Your task to perform on an android device: turn on notifications settings in the gmail app Image 0: 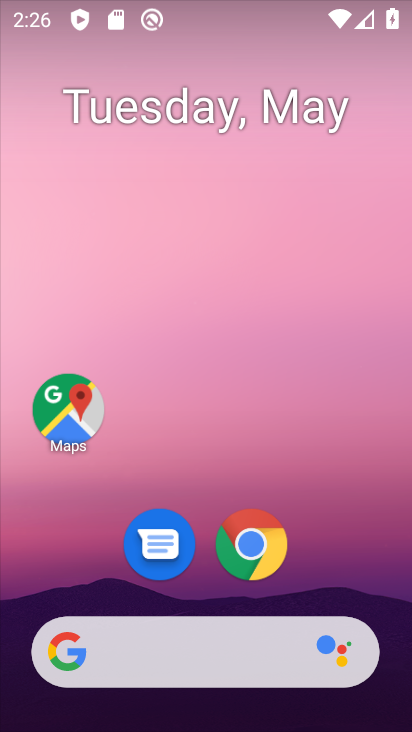
Step 0: drag from (348, 554) to (238, 100)
Your task to perform on an android device: turn on notifications settings in the gmail app Image 1: 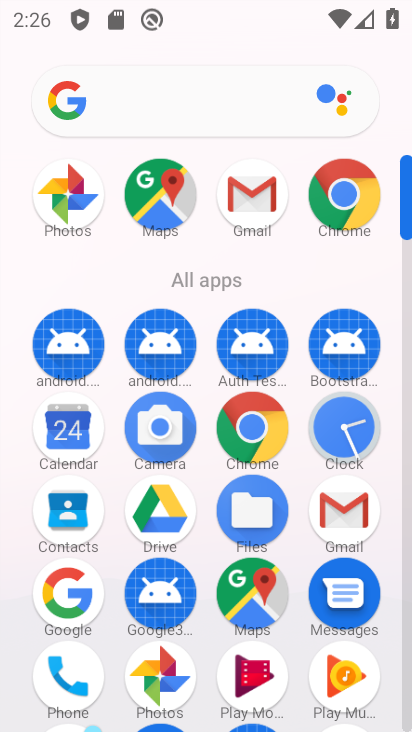
Step 1: click (250, 196)
Your task to perform on an android device: turn on notifications settings in the gmail app Image 2: 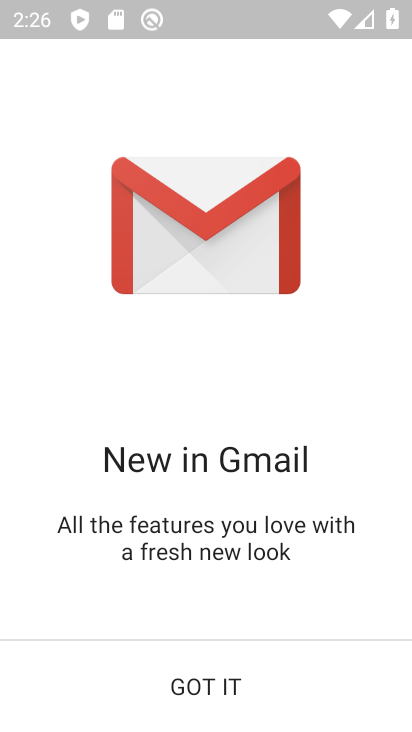
Step 2: click (200, 678)
Your task to perform on an android device: turn on notifications settings in the gmail app Image 3: 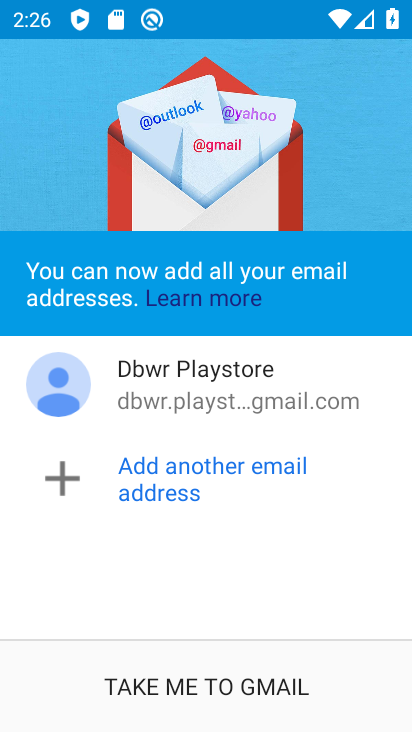
Step 3: click (200, 678)
Your task to perform on an android device: turn on notifications settings in the gmail app Image 4: 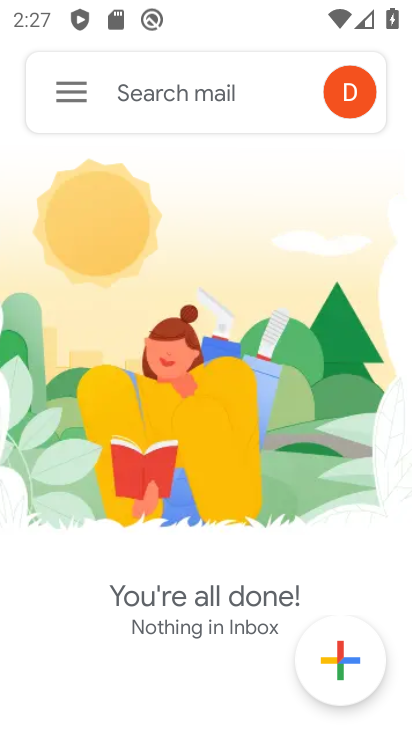
Step 4: click (70, 93)
Your task to perform on an android device: turn on notifications settings in the gmail app Image 5: 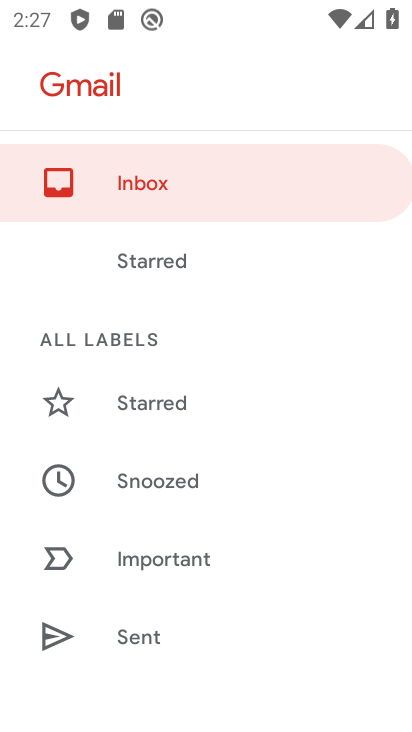
Step 5: drag from (176, 592) to (238, 455)
Your task to perform on an android device: turn on notifications settings in the gmail app Image 6: 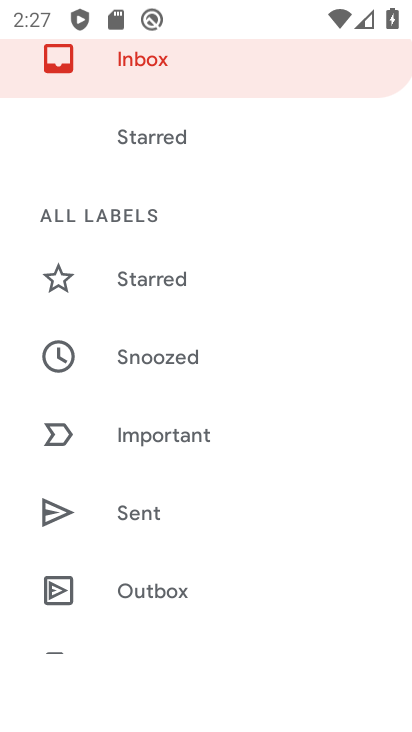
Step 6: drag from (192, 552) to (210, 437)
Your task to perform on an android device: turn on notifications settings in the gmail app Image 7: 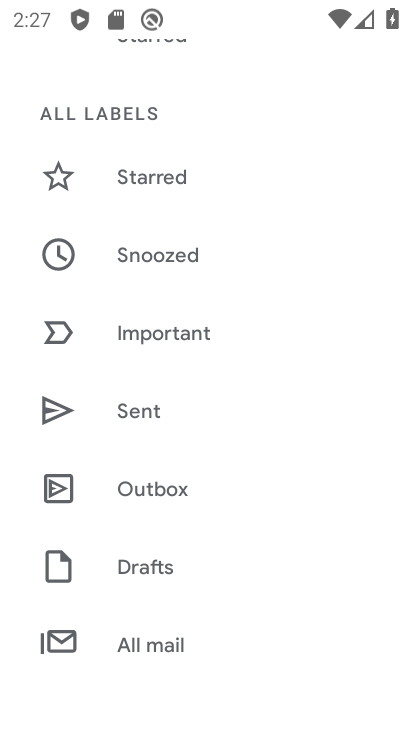
Step 7: drag from (157, 523) to (188, 424)
Your task to perform on an android device: turn on notifications settings in the gmail app Image 8: 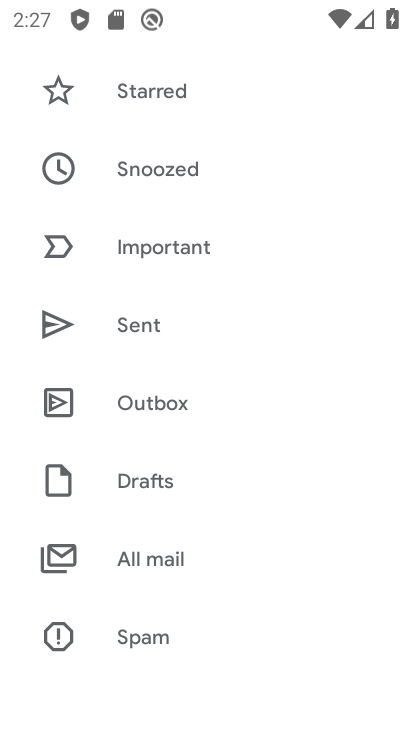
Step 8: drag from (139, 587) to (195, 497)
Your task to perform on an android device: turn on notifications settings in the gmail app Image 9: 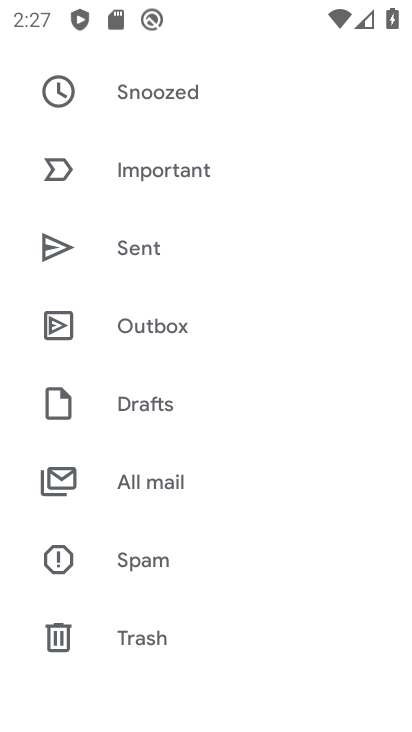
Step 9: drag from (147, 605) to (206, 505)
Your task to perform on an android device: turn on notifications settings in the gmail app Image 10: 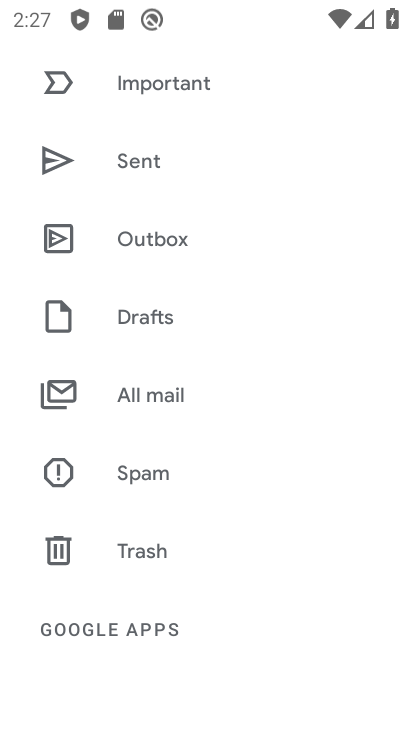
Step 10: drag from (146, 583) to (207, 490)
Your task to perform on an android device: turn on notifications settings in the gmail app Image 11: 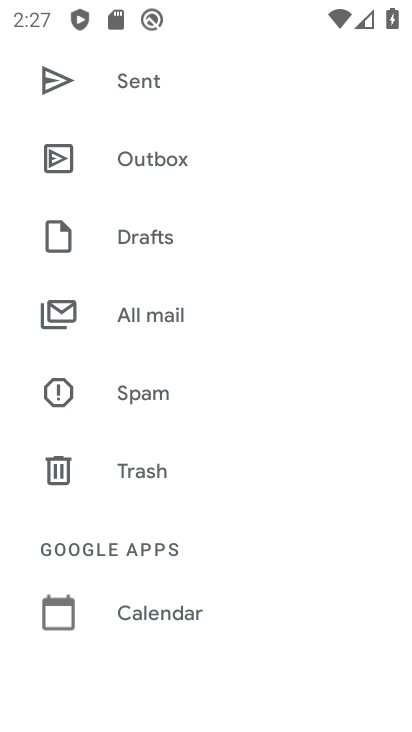
Step 11: drag from (176, 567) to (212, 516)
Your task to perform on an android device: turn on notifications settings in the gmail app Image 12: 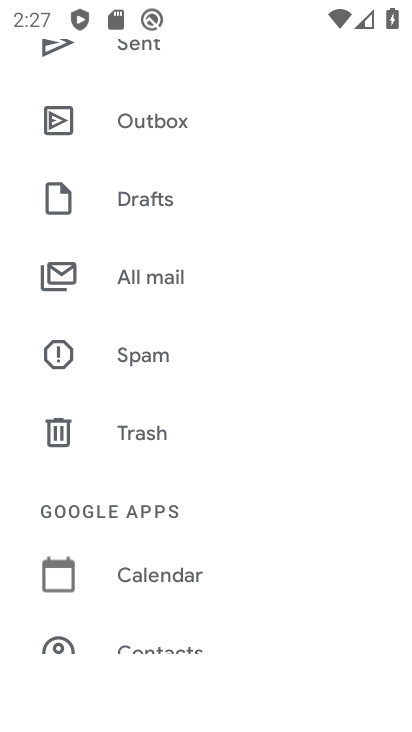
Step 12: drag from (151, 606) to (190, 528)
Your task to perform on an android device: turn on notifications settings in the gmail app Image 13: 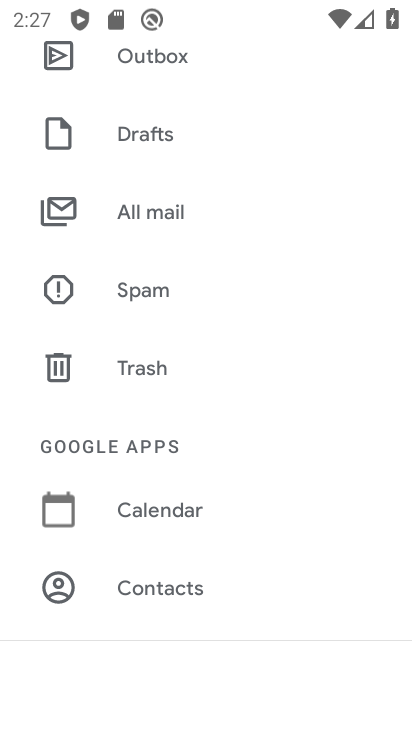
Step 13: drag from (160, 607) to (221, 529)
Your task to perform on an android device: turn on notifications settings in the gmail app Image 14: 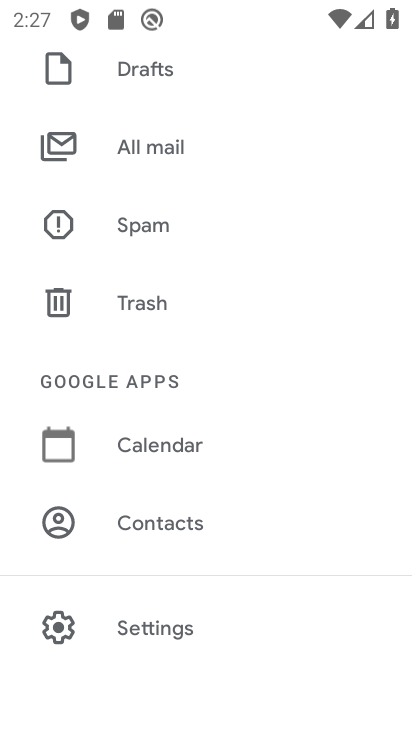
Step 14: click (160, 625)
Your task to perform on an android device: turn on notifications settings in the gmail app Image 15: 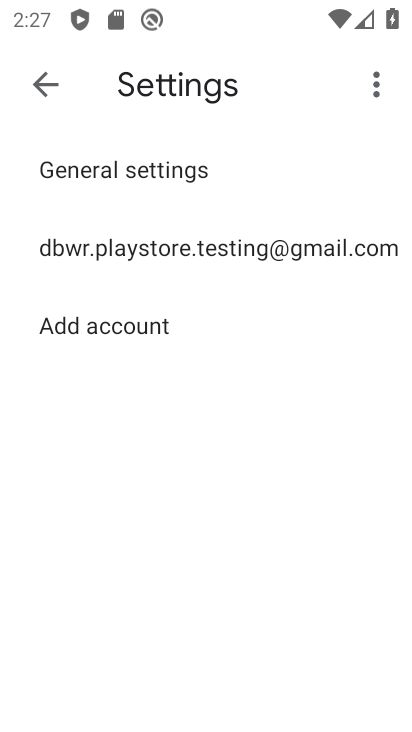
Step 15: click (112, 249)
Your task to perform on an android device: turn on notifications settings in the gmail app Image 16: 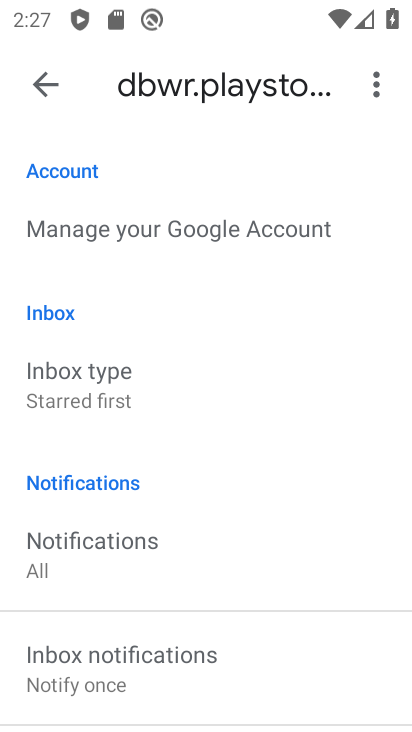
Step 16: drag from (148, 572) to (200, 475)
Your task to perform on an android device: turn on notifications settings in the gmail app Image 17: 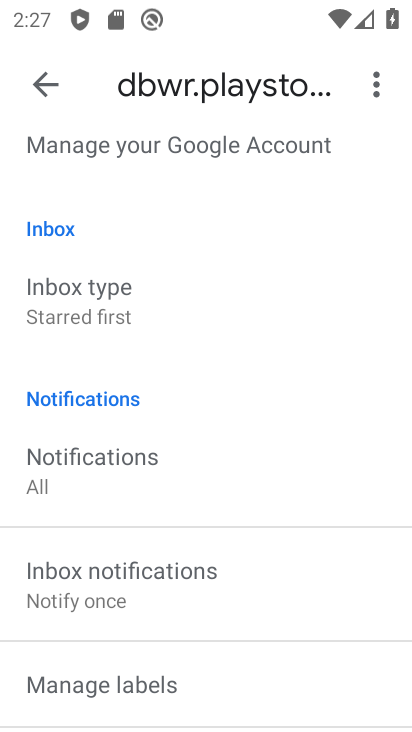
Step 17: drag from (158, 623) to (227, 528)
Your task to perform on an android device: turn on notifications settings in the gmail app Image 18: 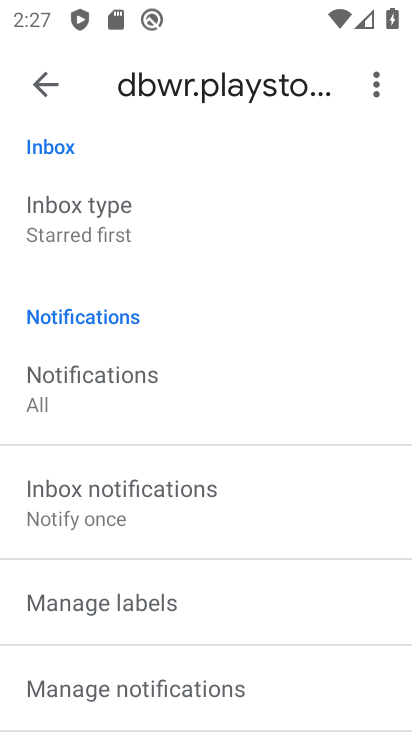
Step 18: drag from (162, 639) to (230, 529)
Your task to perform on an android device: turn on notifications settings in the gmail app Image 19: 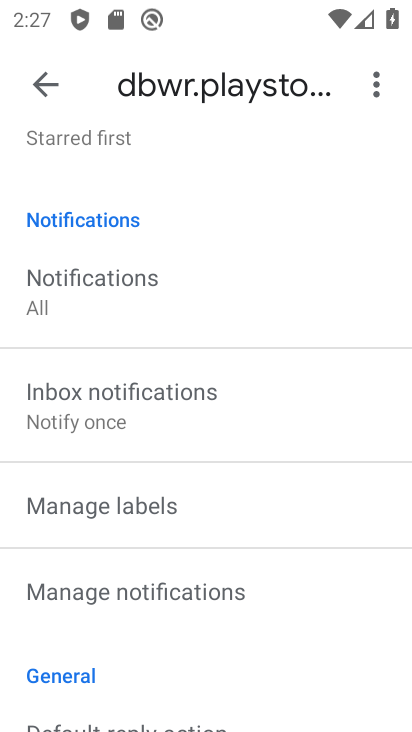
Step 19: click (147, 596)
Your task to perform on an android device: turn on notifications settings in the gmail app Image 20: 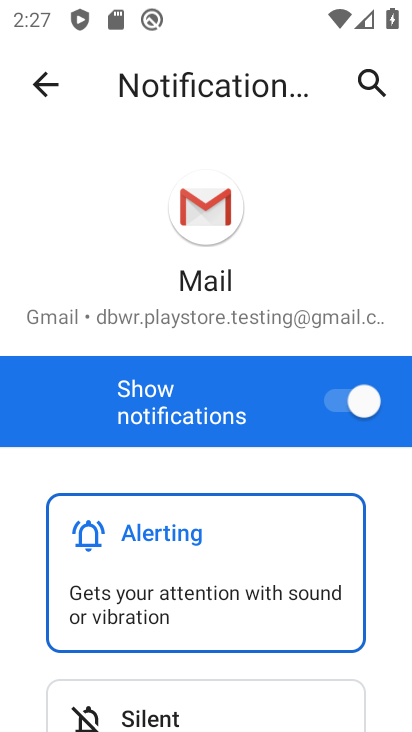
Step 20: task complete